Your task to perform on an android device: What's the weather going to be tomorrow? Image 0: 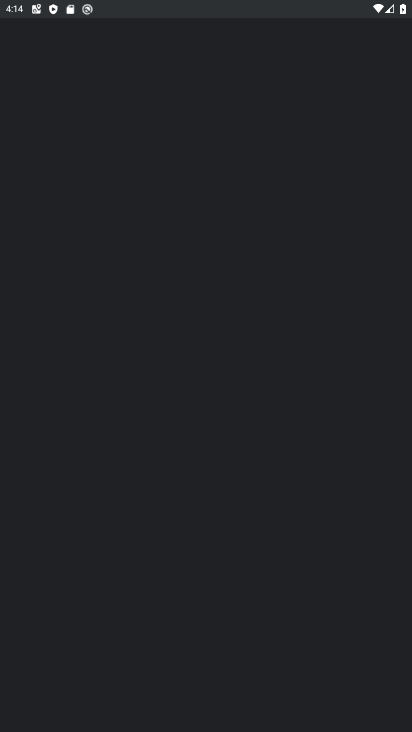
Step 0: drag from (222, 628) to (195, 118)
Your task to perform on an android device: What's the weather going to be tomorrow? Image 1: 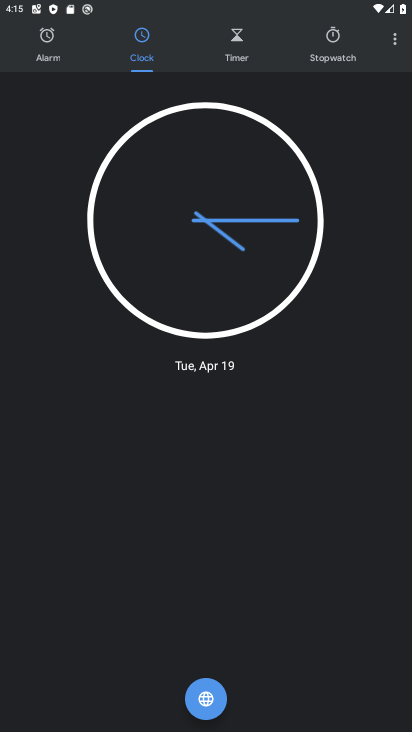
Step 1: press home button
Your task to perform on an android device: What's the weather going to be tomorrow? Image 2: 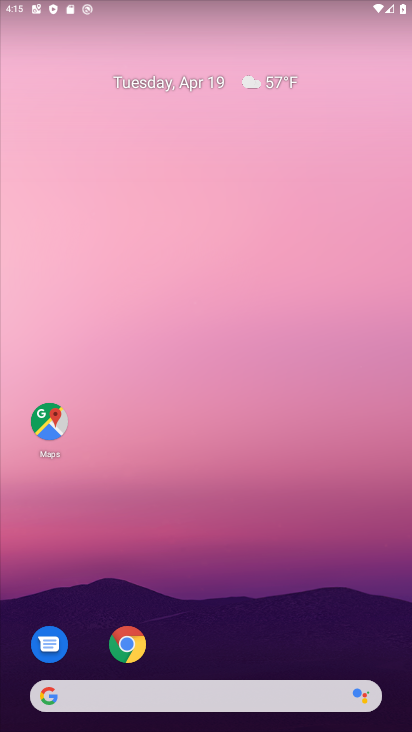
Step 2: drag from (265, 578) to (244, 177)
Your task to perform on an android device: What's the weather going to be tomorrow? Image 3: 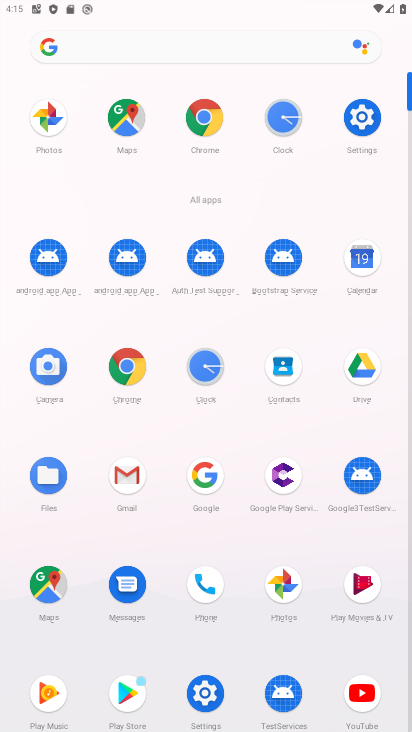
Step 3: click (207, 123)
Your task to perform on an android device: What's the weather going to be tomorrow? Image 4: 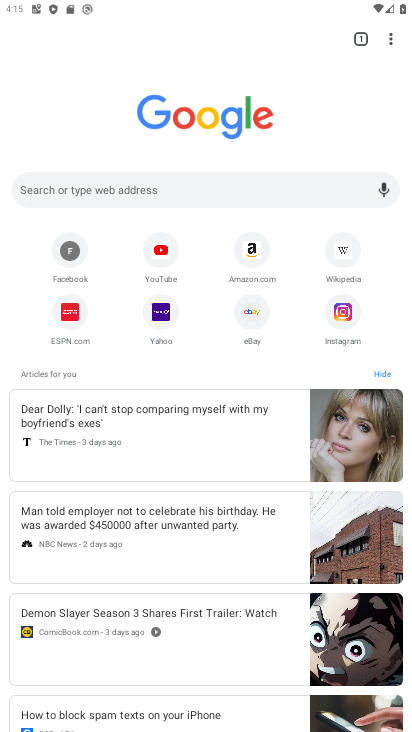
Step 4: click (243, 197)
Your task to perform on an android device: What's the weather going to be tomorrow? Image 5: 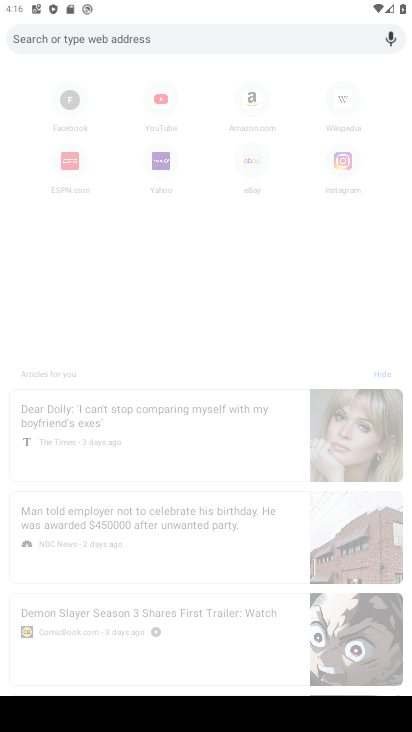
Step 5: type "weather tomarrow"
Your task to perform on an android device: What's the weather going to be tomorrow? Image 6: 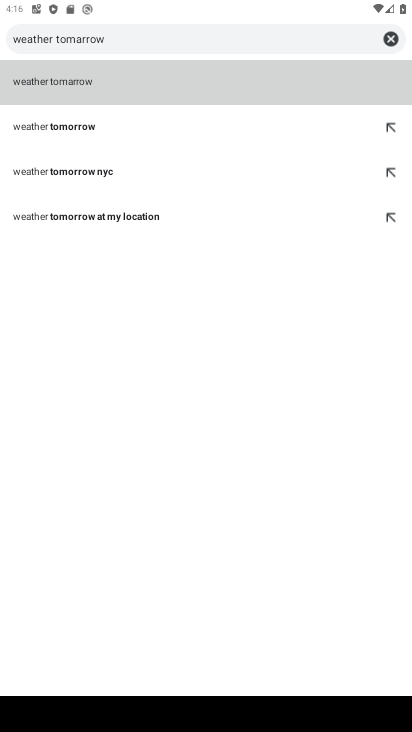
Step 6: click (83, 79)
Your task to perform on an android device: What's the weather going to be tomorrow? Image 7: 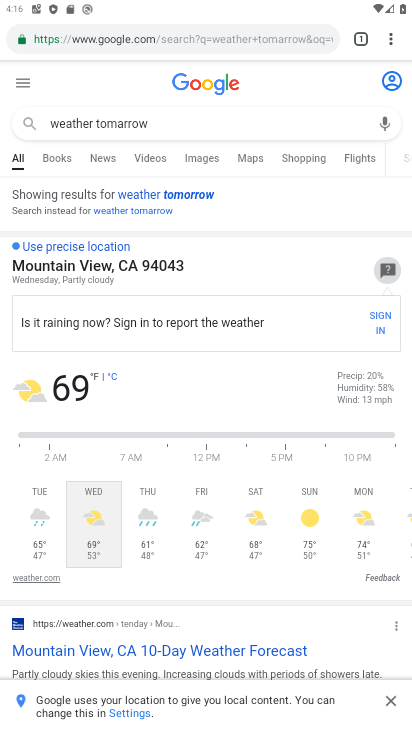
Step 7: task complete